Your task to perform on an android device: Open Amazon Image 0: 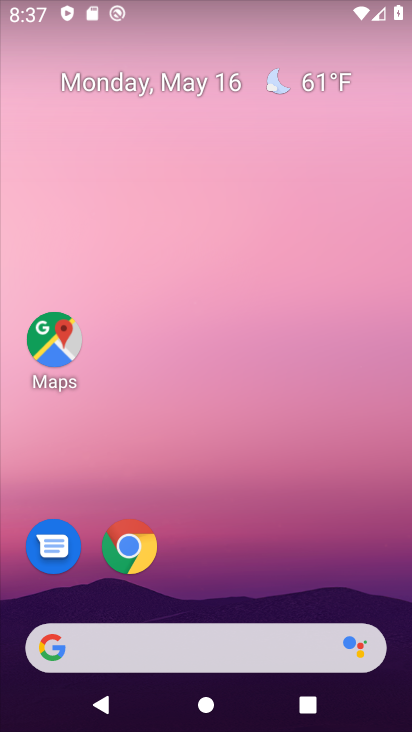
Step 0: click (146, 545)
Your task to perform on an android device: Open Amazon Image 1: 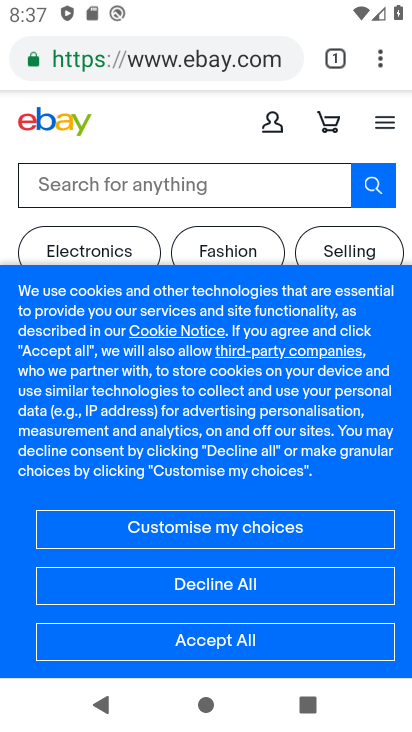
Step 1: click (338, 46)
Your task to perform on an android device: Open Amazon Image 2: 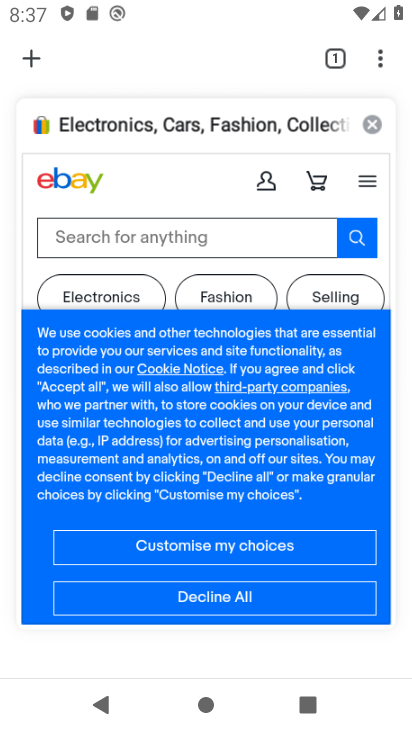
Step 2: click (376, 125)
Your task to perform on an android device: Open Amazon Image 3: 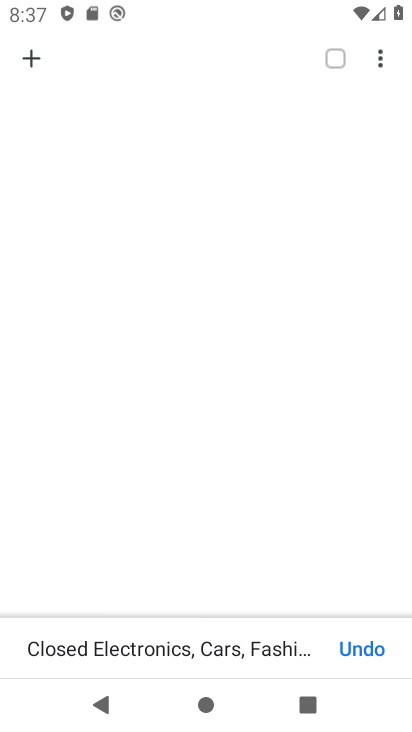
Step 3: click (38, 58)
Your task to perform on an android device: Open Amazon Image 4: 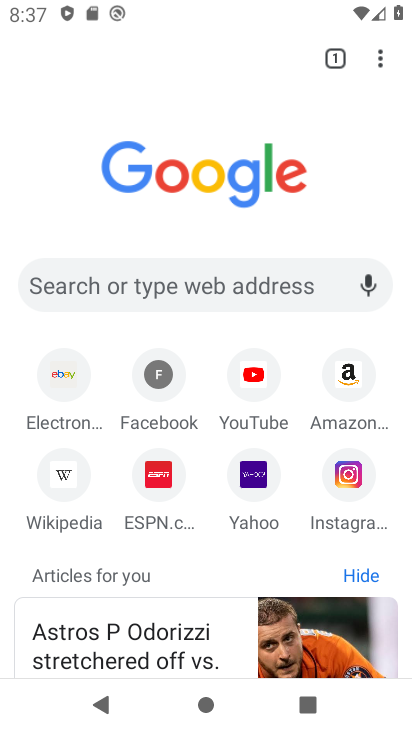
Step 4: click (343, 375)
Your task to perform on an android device: Open Amazon Image 5: 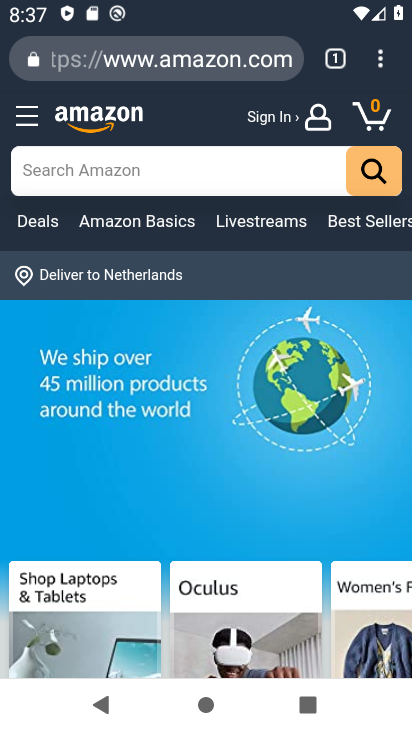
Step 5: task complete